Your task to perform on an android device: turn off improve location accuracy Image 0: 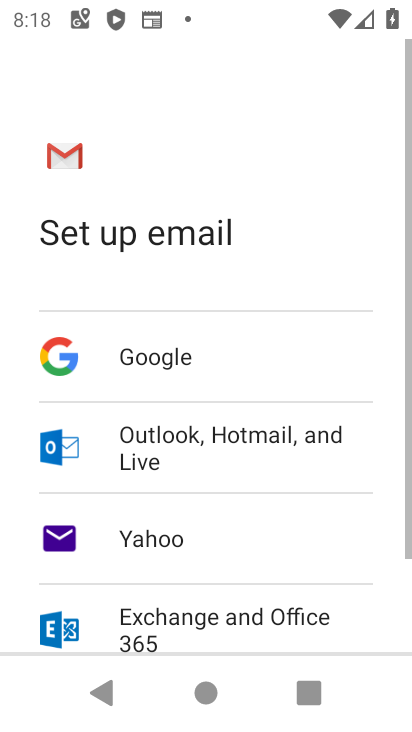
Step 0: press home button
Your task to perform on an android device: turn off improve location accuracy Image 1: 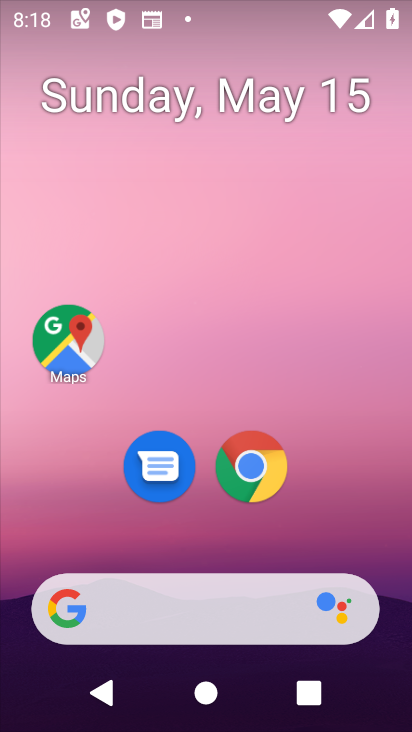
Step 1: drag from (210, 544) to (190, 70)
Your task to perform on an android device: turn off improve location accuracy Image 2: 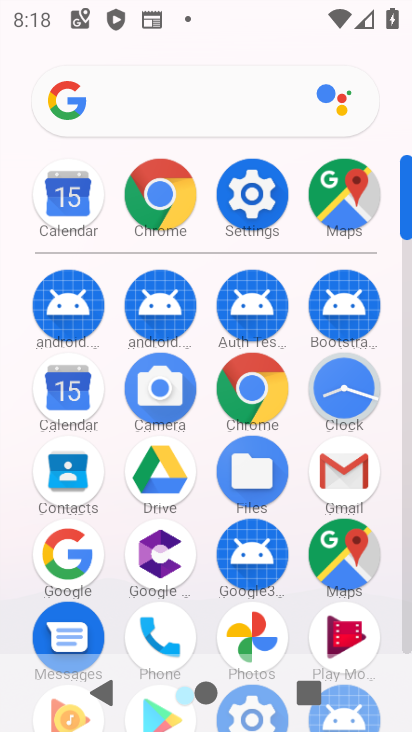
Step 2: click (258, 192)
Your task to perform on an android device: turn off improve location accuracy Image 3: 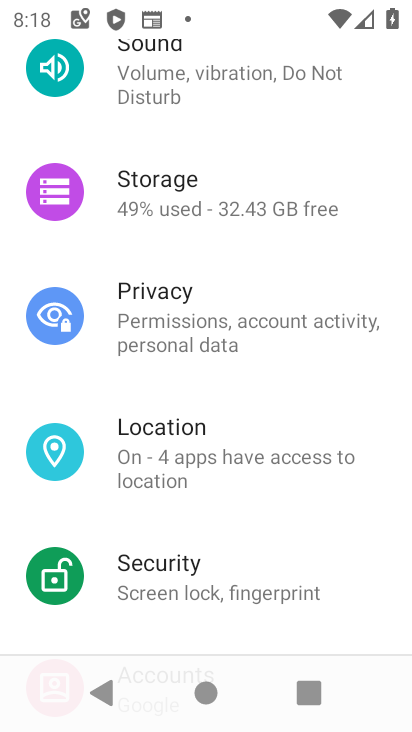
Step 3: click (204, 479)
Your task to perform on an android device: turn off improve location accuracy Image 4: 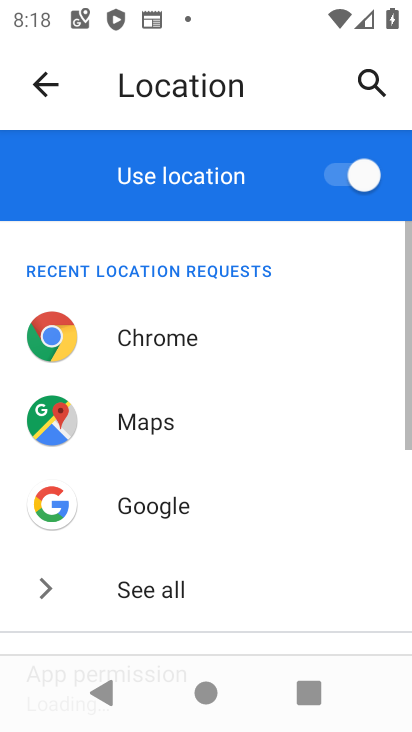
Step 4: drag from (226, 529) to (203, 74)
Your task to perform on an android device: turn off improve location accuracy Image 5: 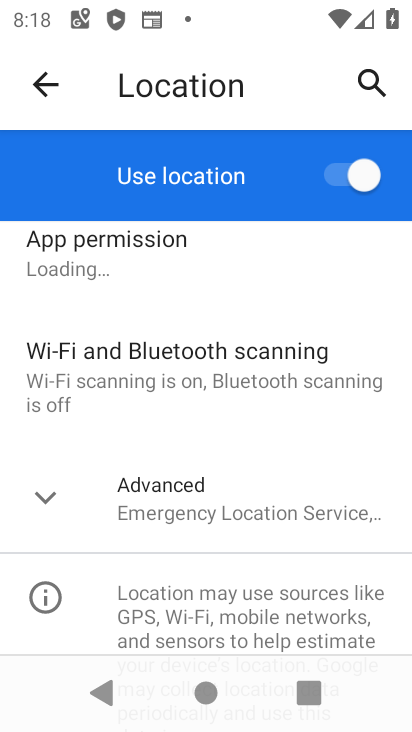
Step 5: click (215, 500)
Your task to perform on an android device: turn off improve location accuracy Image 6: 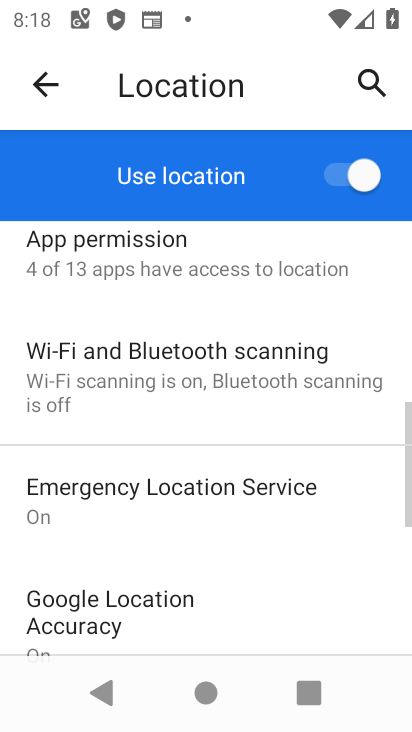
Step 6: click (152, 628)
Your task to perform on an android device: turn off improve location accuracy Image 7: 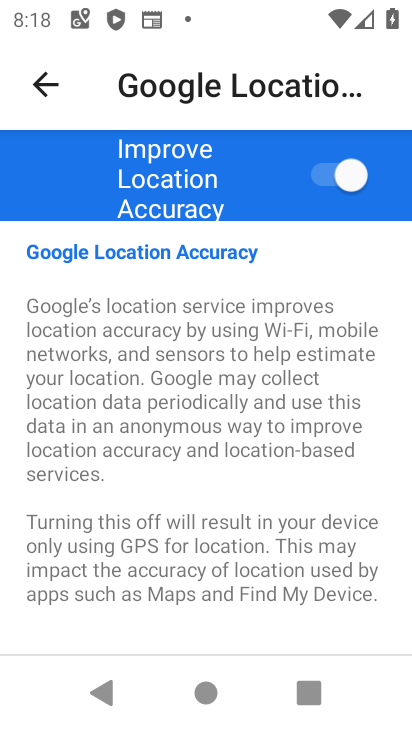
Step 7: click (337, 185)
Your task to perform on an android device: turn off improve location accuracy Image 8: 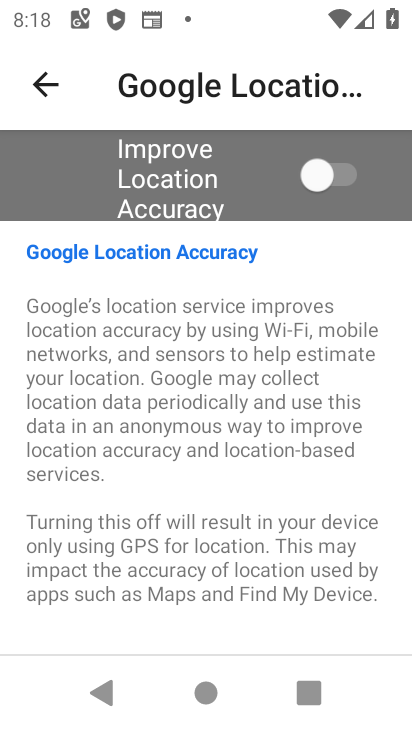
Step 8: task complete